Your task to perform on an android device: open a new tab in the chrome app Image 0: 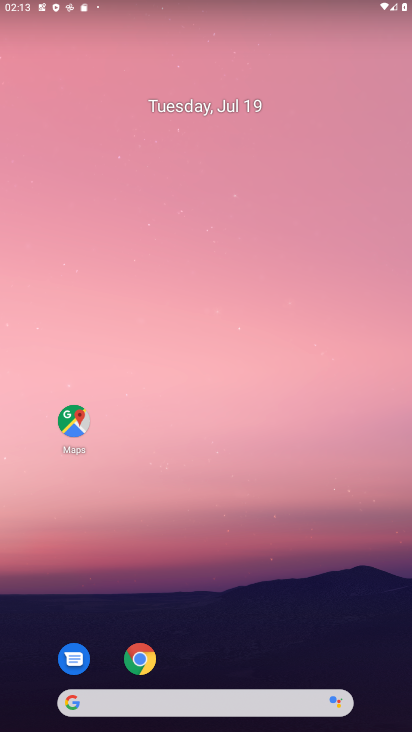
Step 0: press home button
Your task to perform on an android device: open a new tab in the chrome app Image 1: 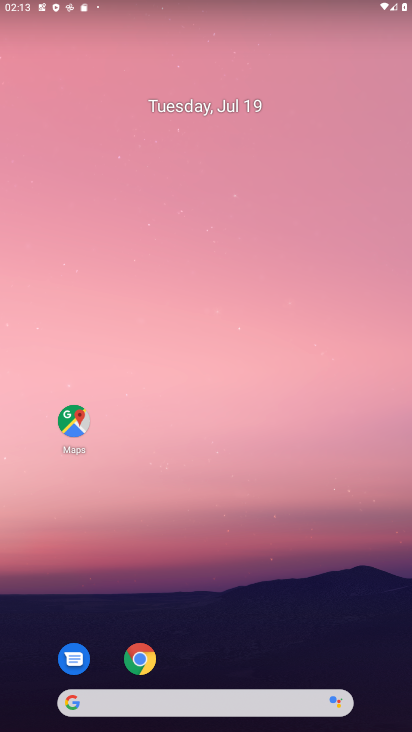
Step 1: click (151, 652)
Your task to perform on an android device: open a new tab in the chrome app Image 2: 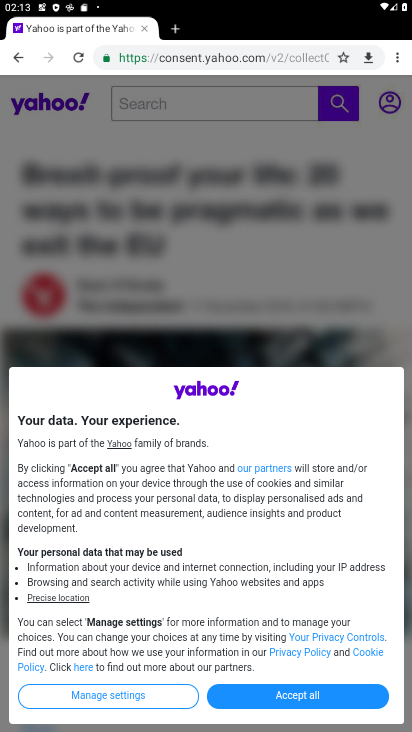
Step 2: click (183, 29)
Your task to perform on an android device: open a new tab in the chrome app Image 3: 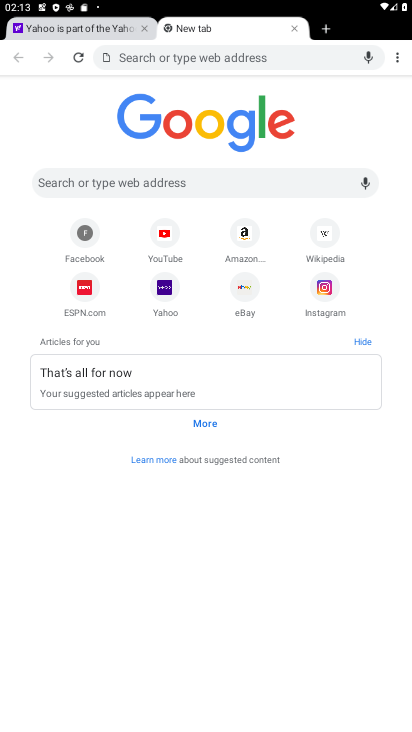
Step 3: task complete